Your task to perform on an android device: Open Google Maps Image 0: 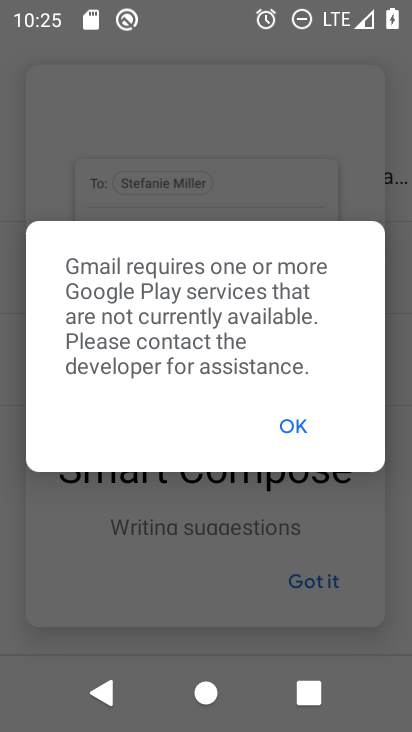
Step 0: press home button
Your task to perform on an android device: Open Google Maps Image 1: 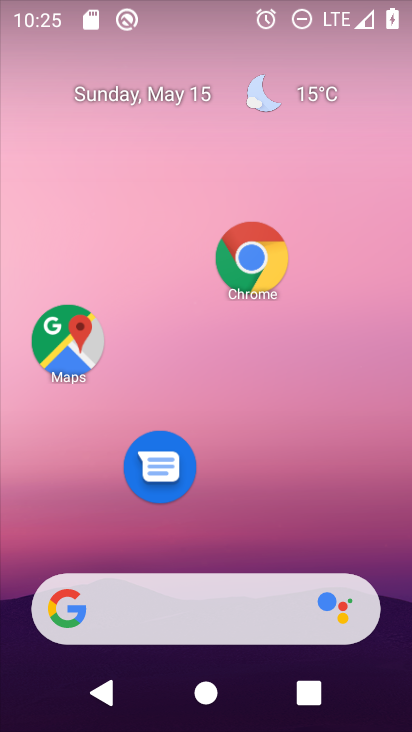
Step 1: click (68, 367)
Your task to perform on an android device: Open Google Maps Image 2: 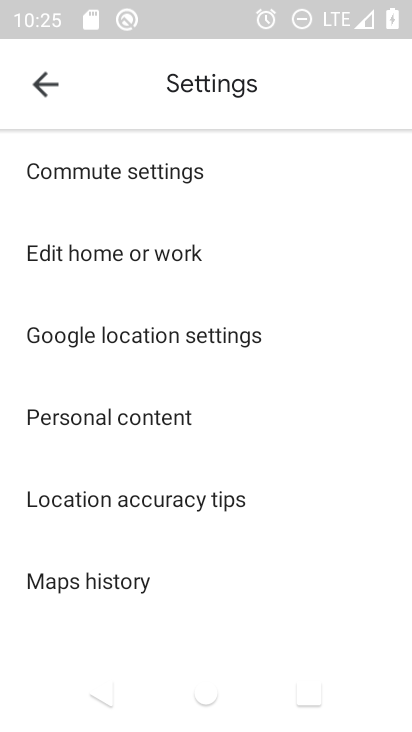
Step 2: click (28, 82)
Your task to perform on an android device: Open Google Maps Image 3: 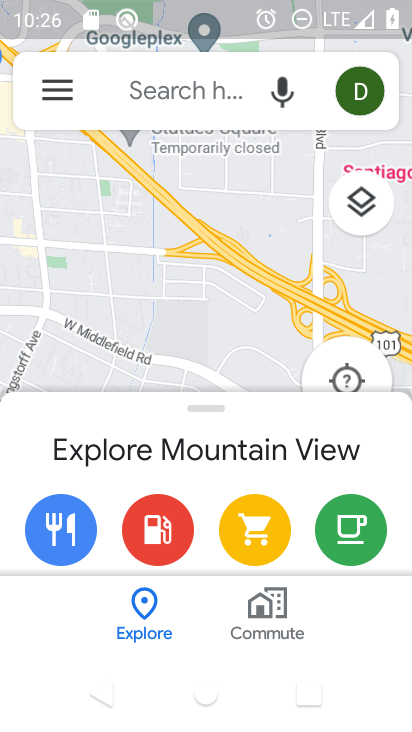
Step 3: task complete